Your task to perform on an android device: Open battery settings Image 0: 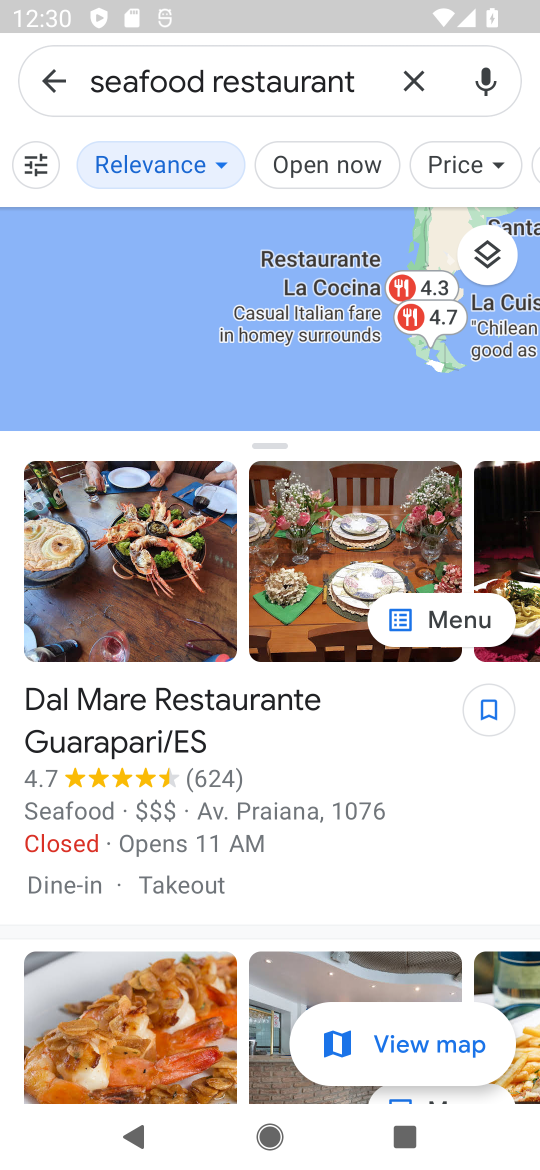
Step 0: press back button
Your task to perform on an android device: Open battery settings Image 1: 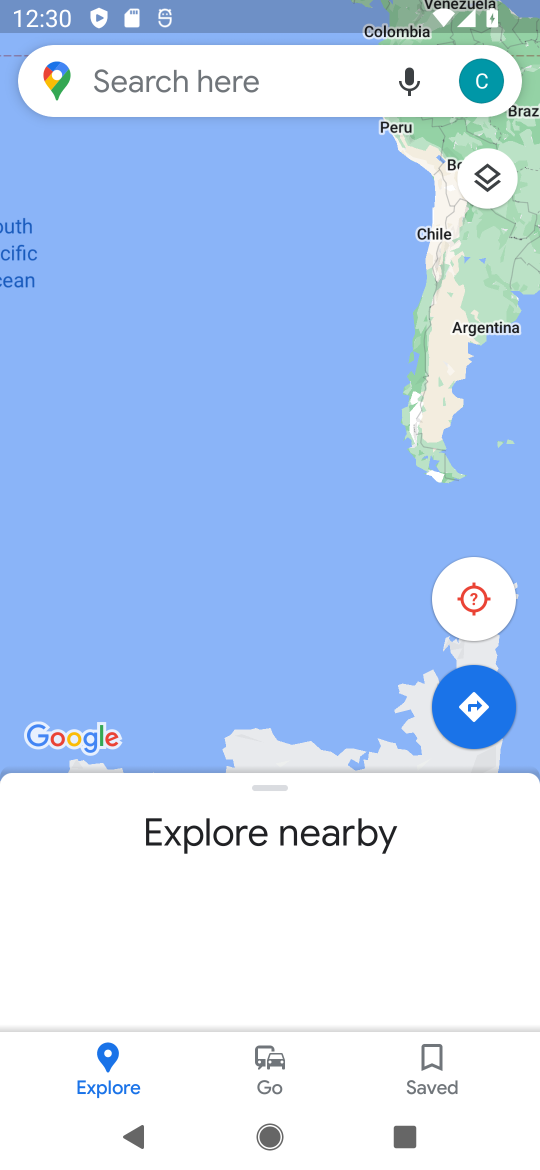
Step 1: press back button
Your task to perform on an android device: Open battery settings Image 2: 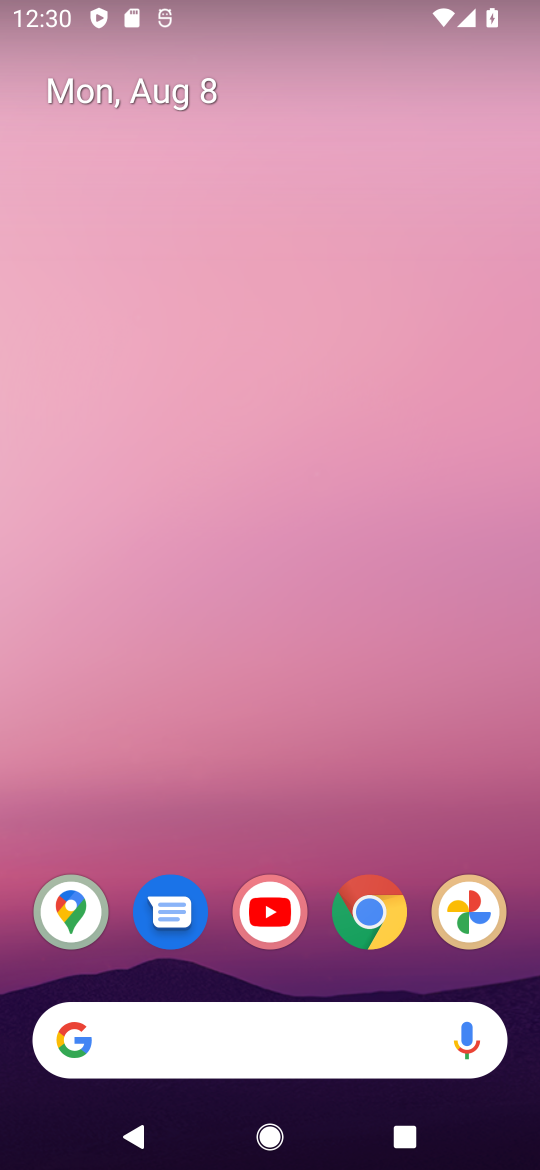
Step 2: drag from (284, 920) to (381, 0)
Your task to perform on an android device: Open battery settings Image 3: 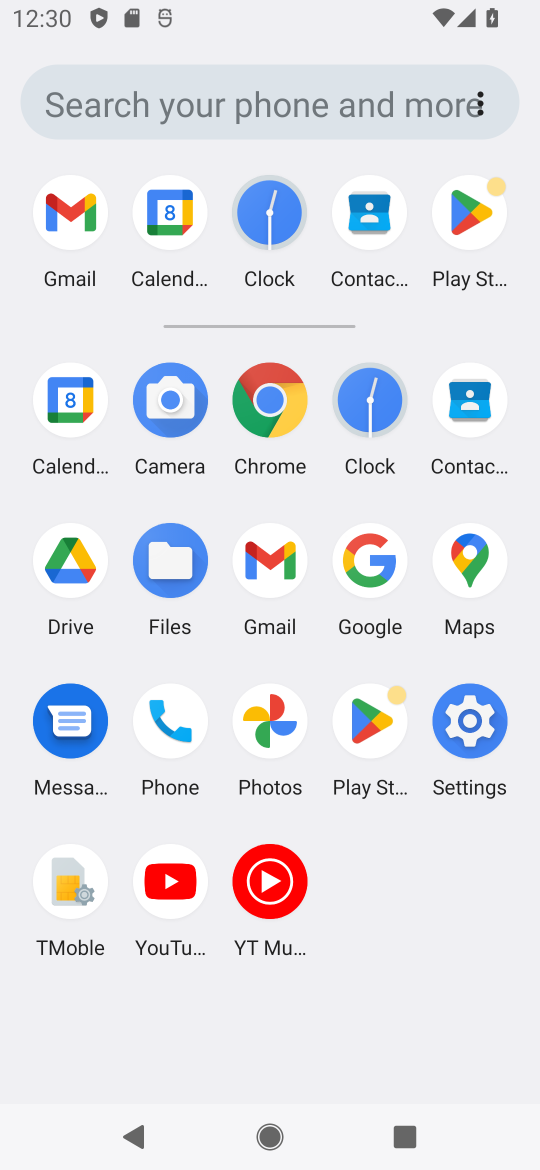
Step 3: click (478, 732)
Your task to perform on an android device: Open battery settings Image 4: 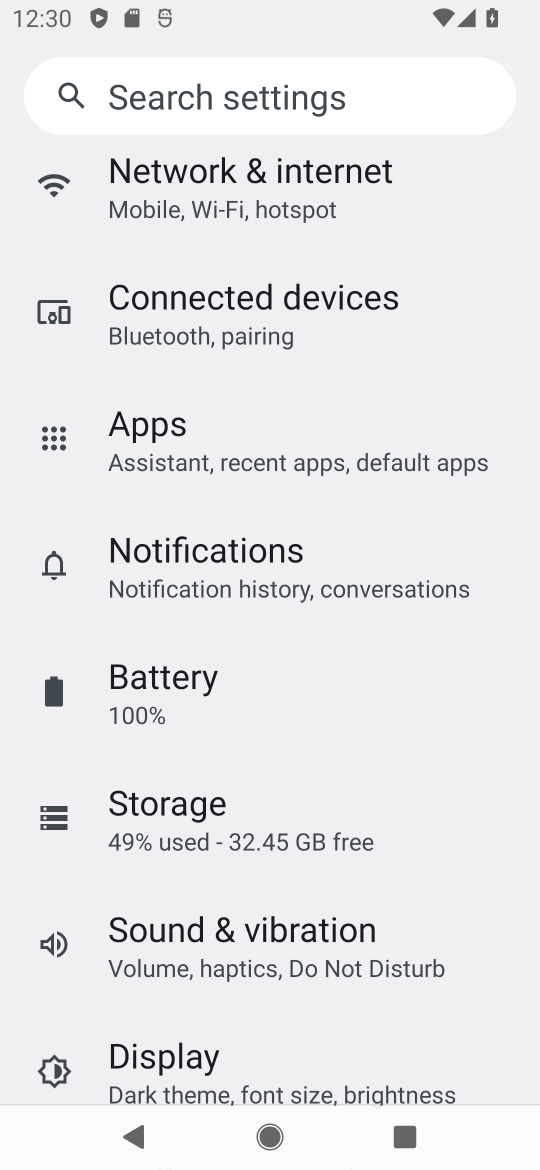
Step 4: click (184, 691)
Your task to perform on an android device: Open battery settings Image 5: 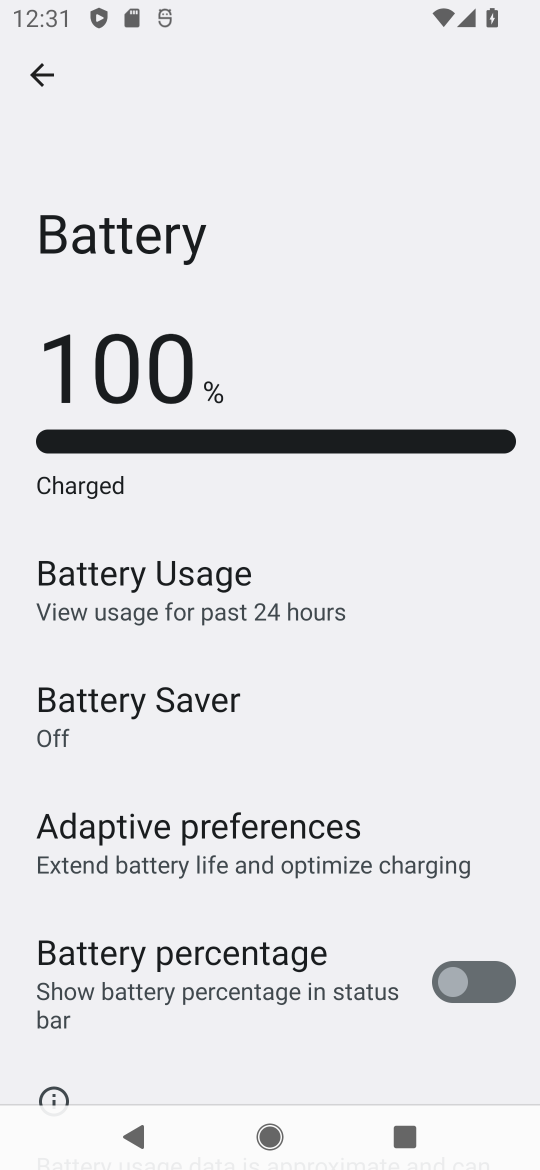
Step 5: task complete